Your task to perform on an android device: toggle wifi Image 0: 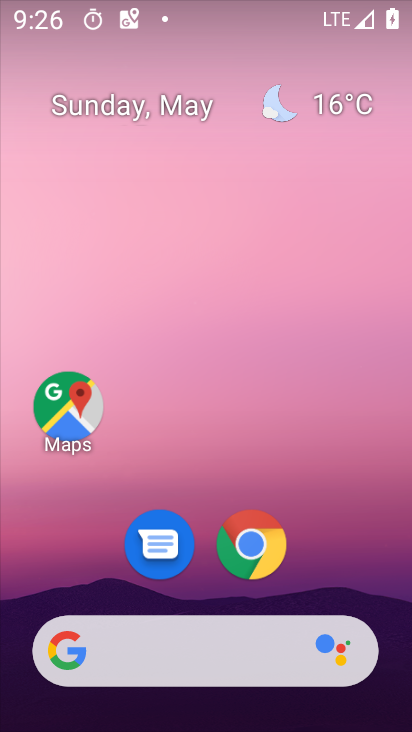
Step 0: drag from (324, 580) to (285, 0)
Your task to perform on an android device: toggle wifi Image 1: 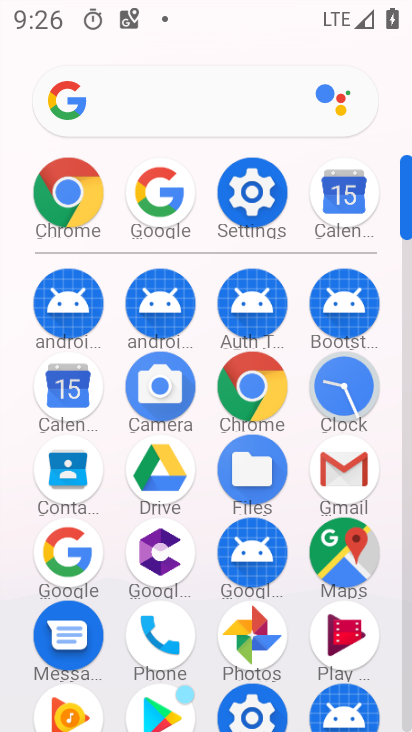
Step 1: click (242, 215)
Your task to perform on an android device: toggle wifi Image 2: 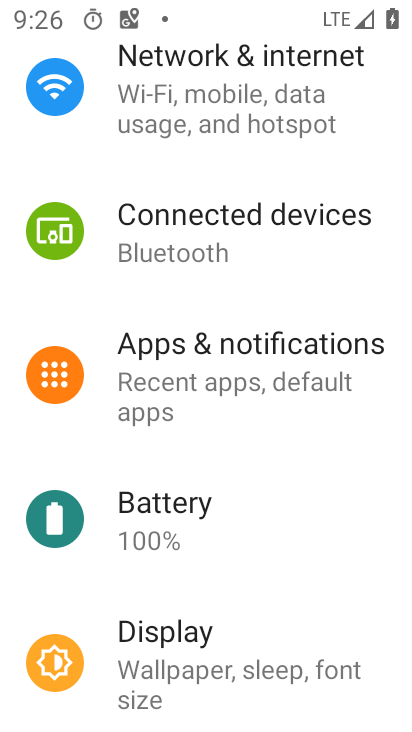
Step 2: click (225, 127)
Your task to perform on an android device: toggle wifi Image 3: 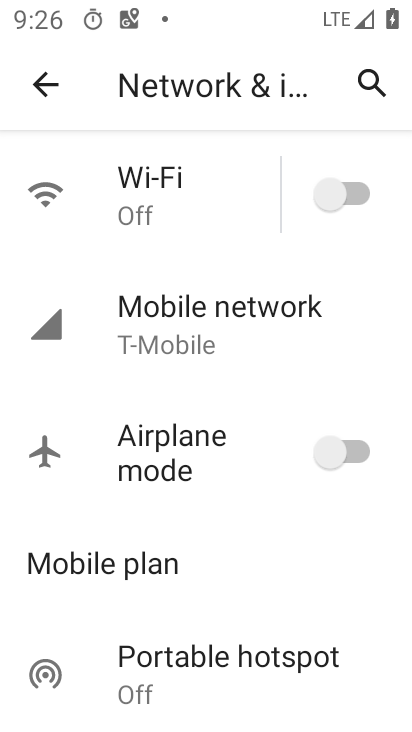
Step 3: click (361, 198)
Your task to perform on an android device: toggle wifi Image 4: 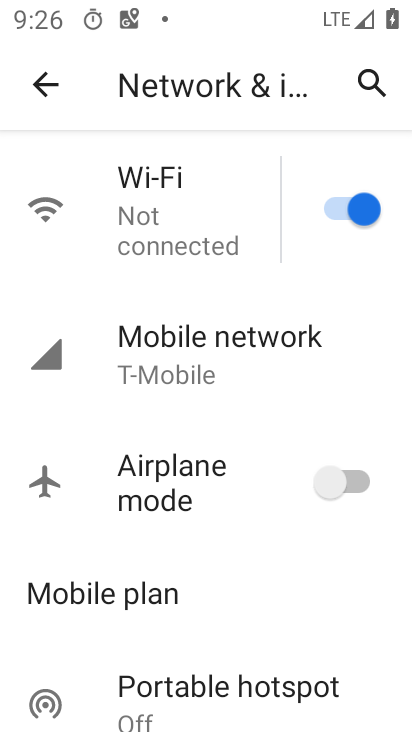
Step 4: task complete